Your task to perform on an android device: Open Amazon Image 0: 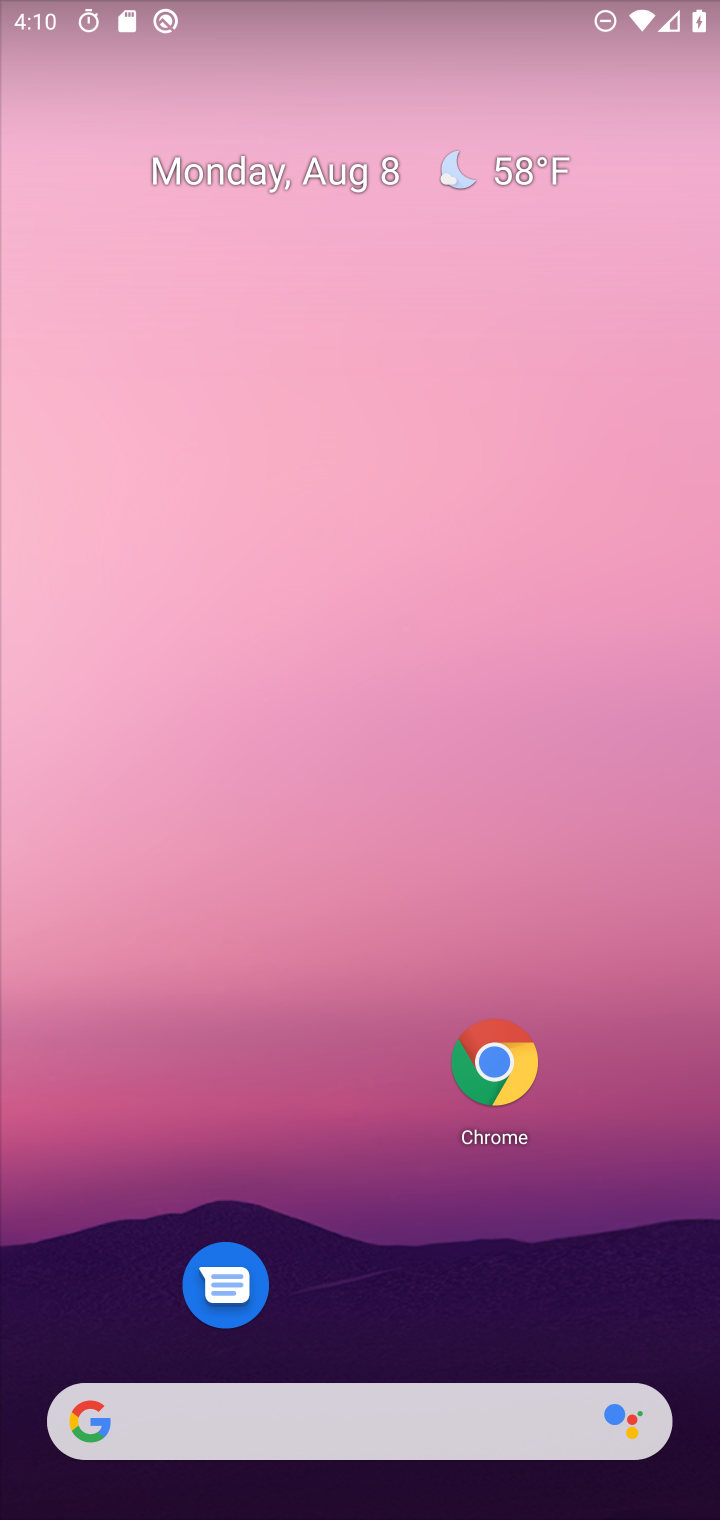
Step 0: click (494, 1042)
Your task to perform on an android device: Open Amazon Image 1: 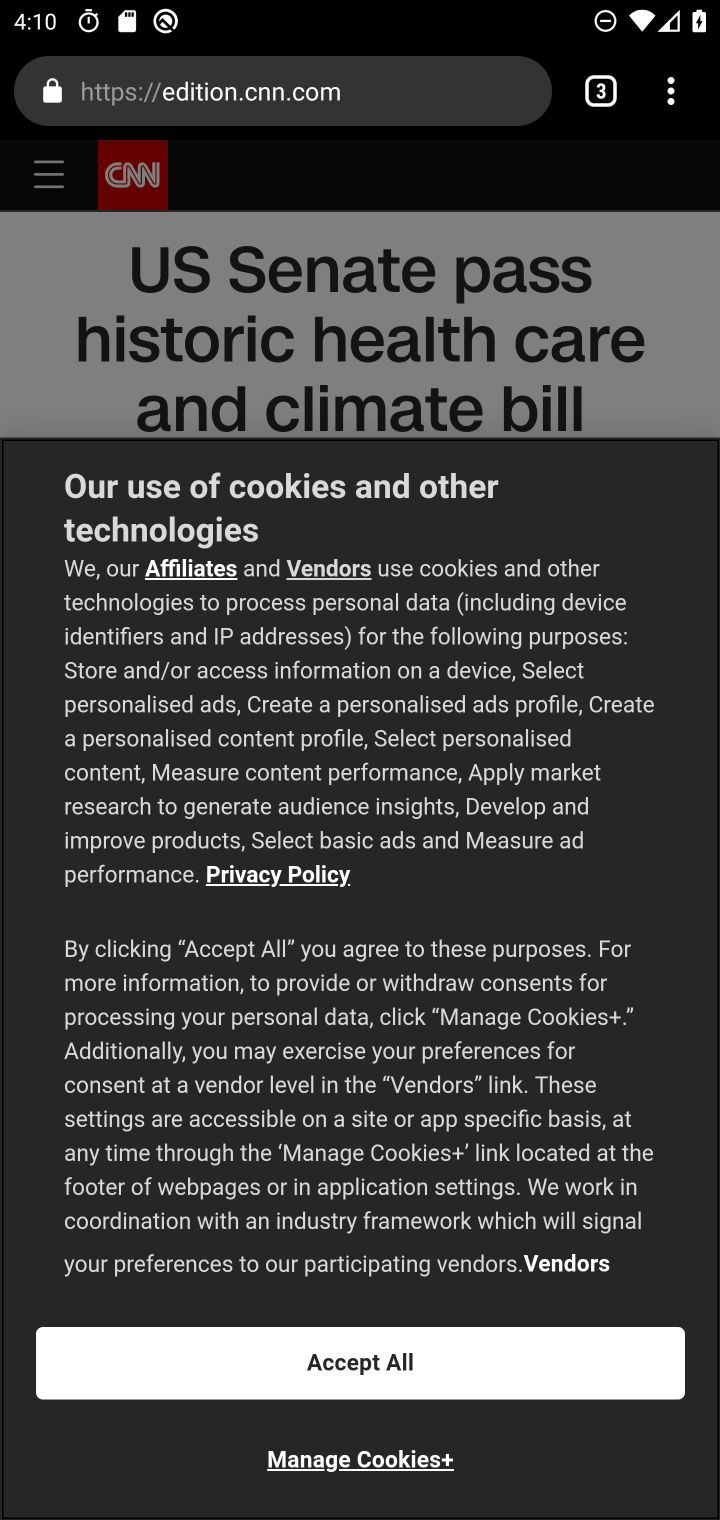
Step 1: click (602, 98)
Your task to perform on an android device: Open Amazon Image 2: 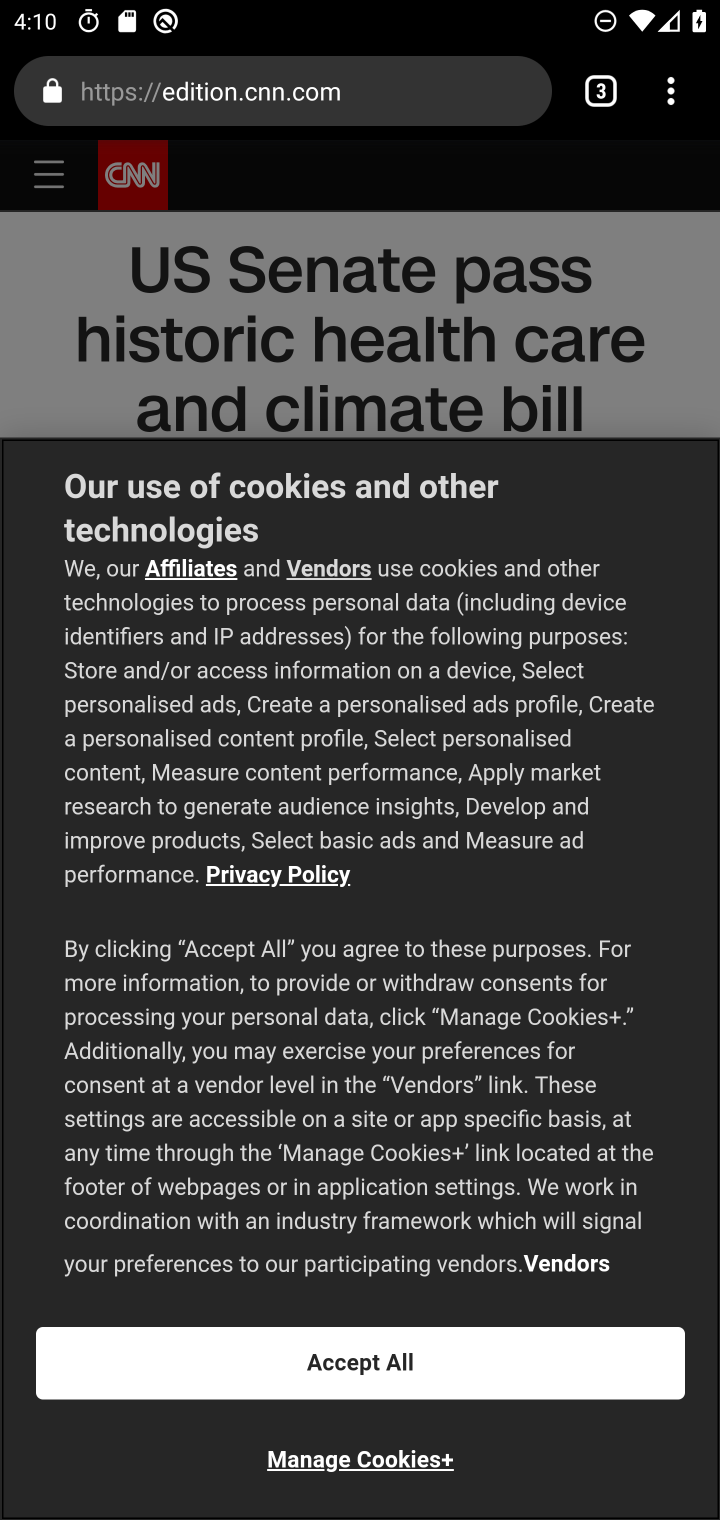
Step 2: click (604, 92)
Your task to perform on an android device: Open Amazon Image 3: 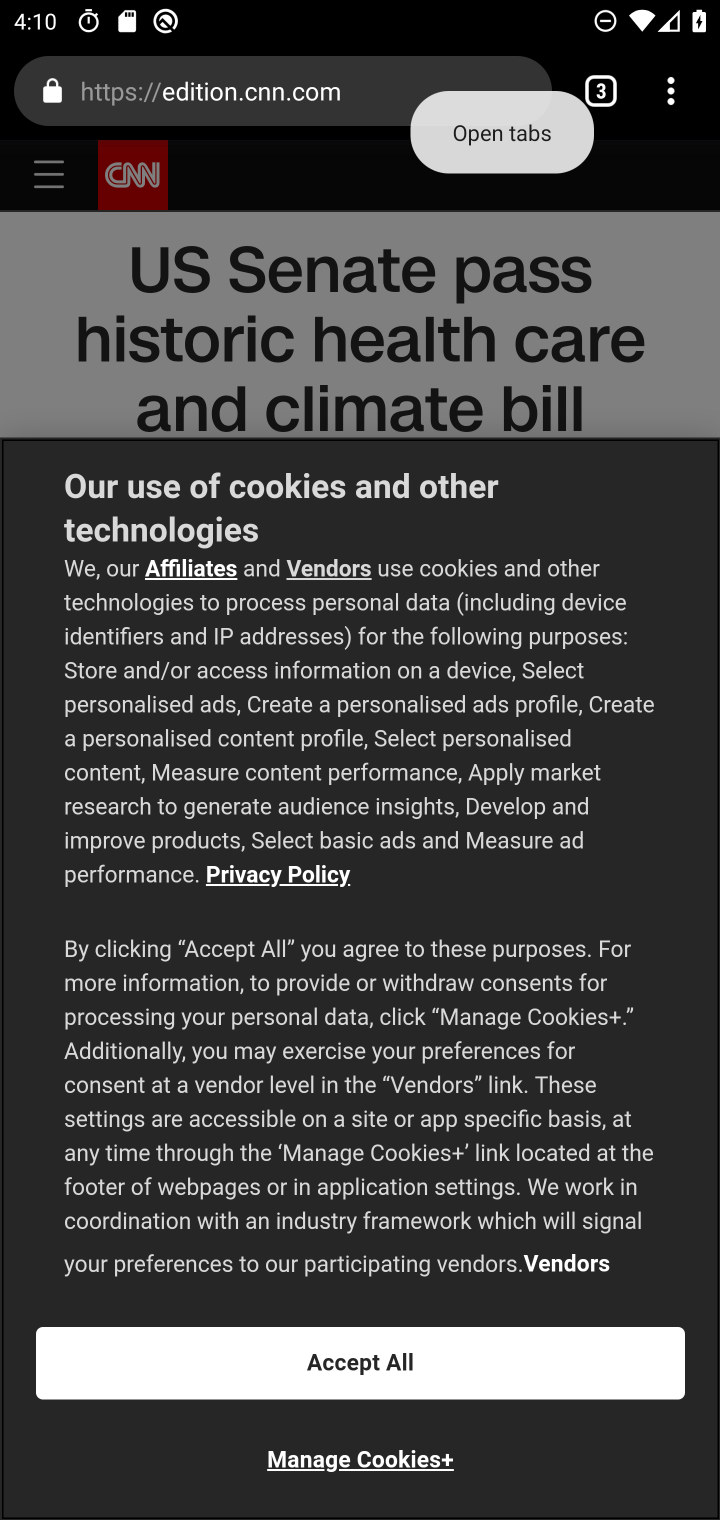
Step 3: click (610, 79)
Your task to perform on an android device: Open Amazon Image 4: 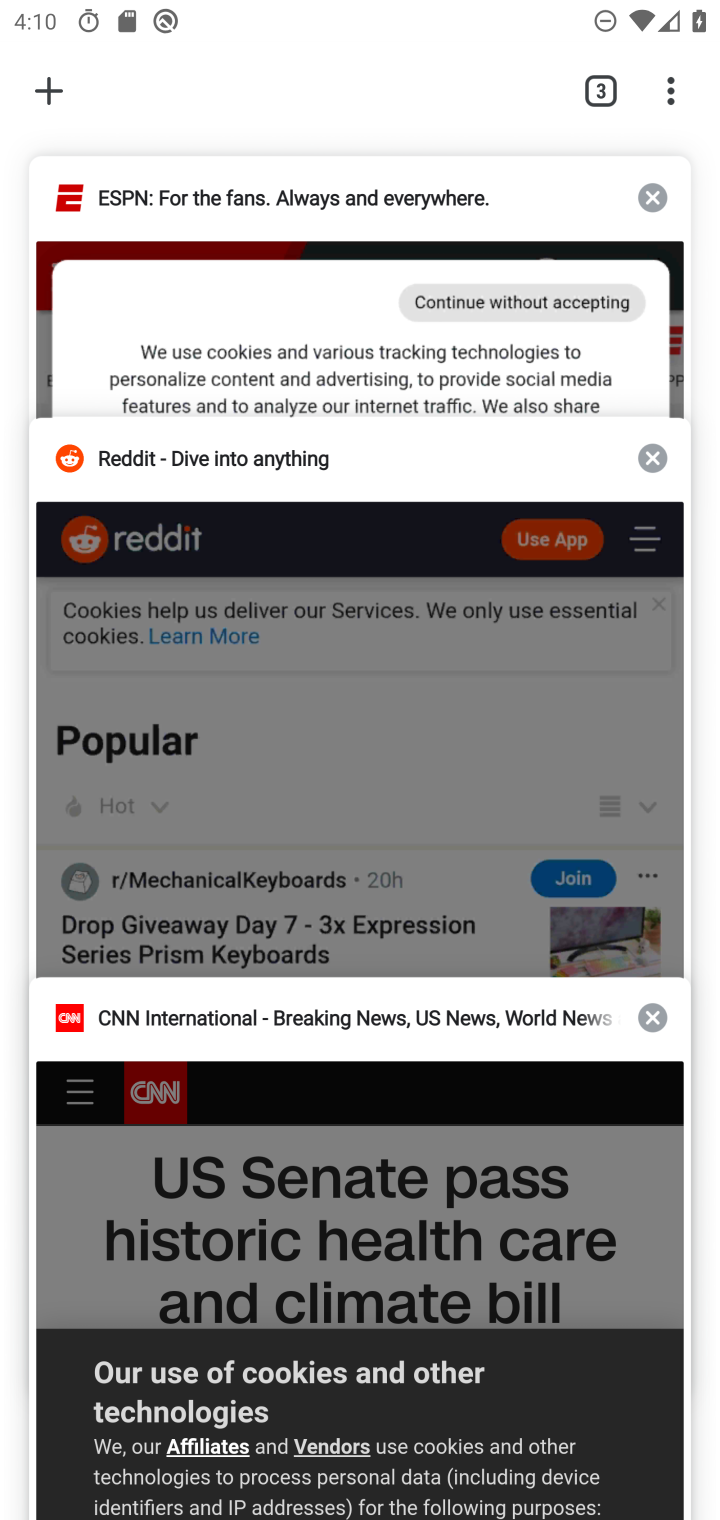
Step 4: click (58, 75)
Your task to perform on an android device: Open Amazon Image 5: 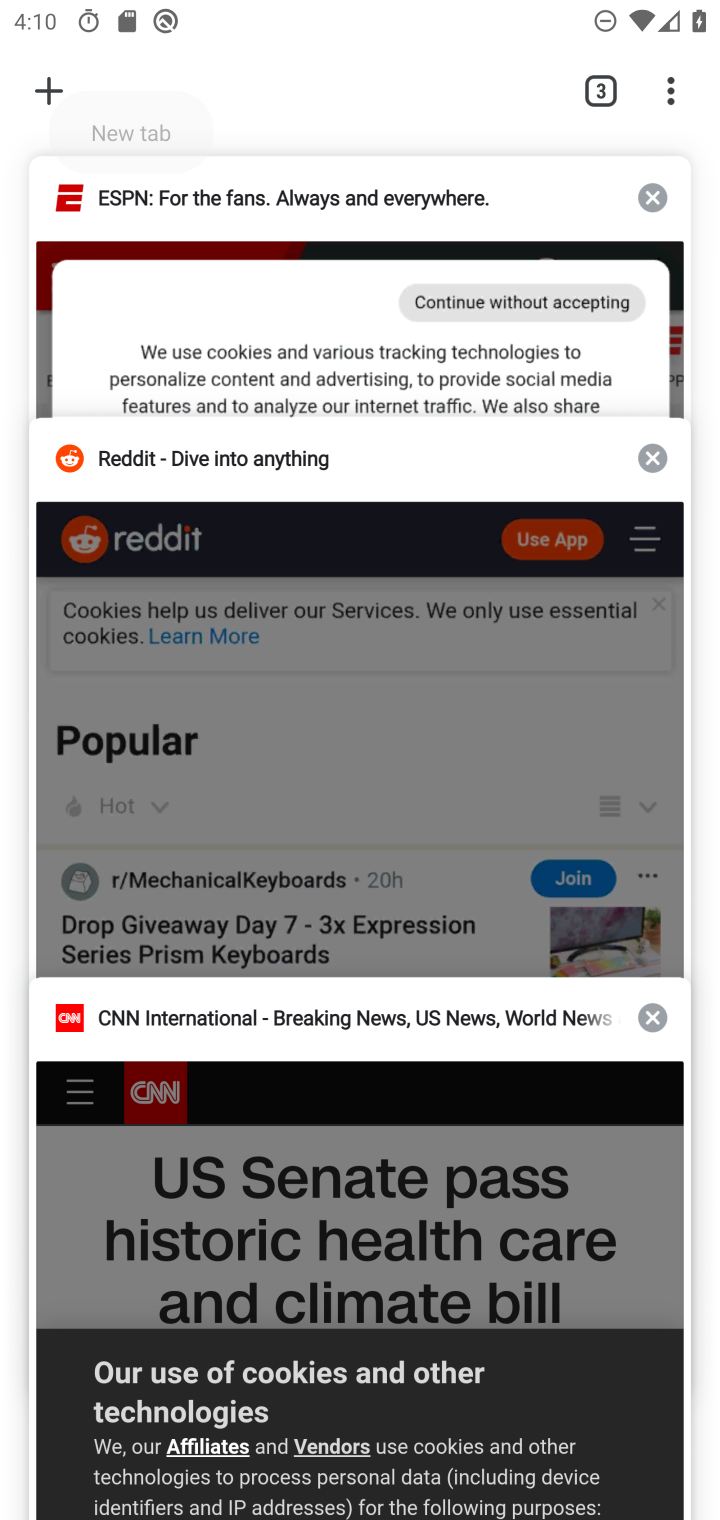
Step 5: click (53, 81)
Your task to perform on an android device: Open Amazon Image 6: 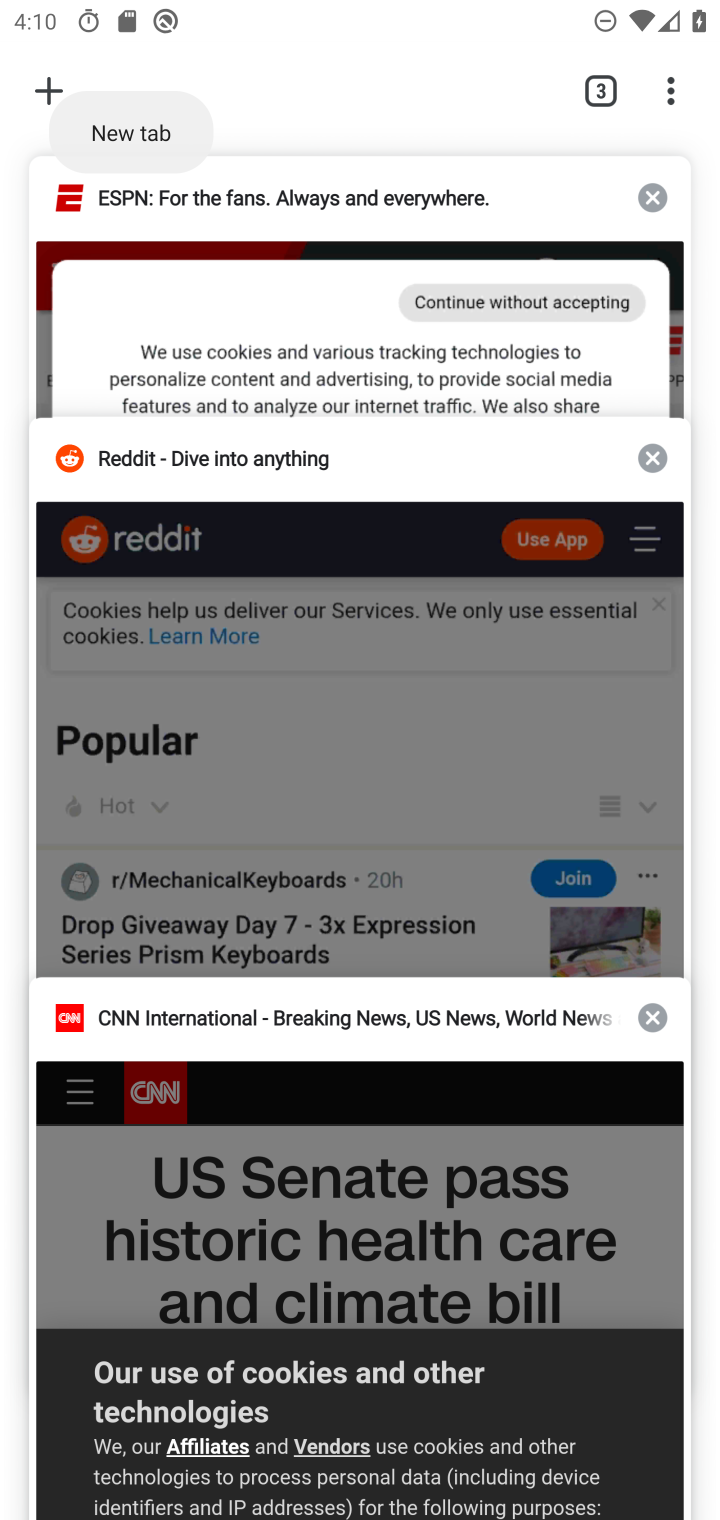
Step 6: click (55, 75)
Your task to perform on an android device: Open Amazon Image 7: 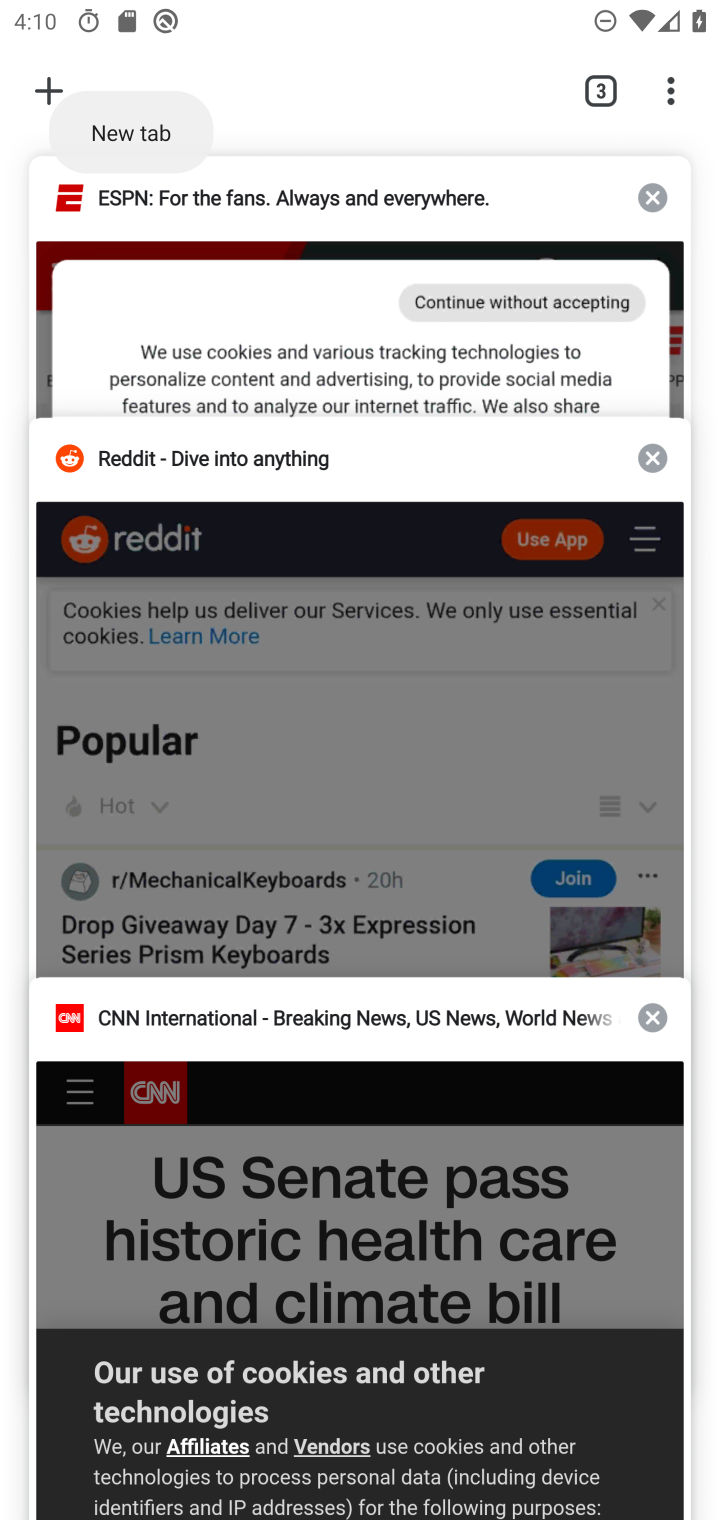
Step 7: click (55, 75)
Your task to perform on an android device: Open Amazon Image 8: 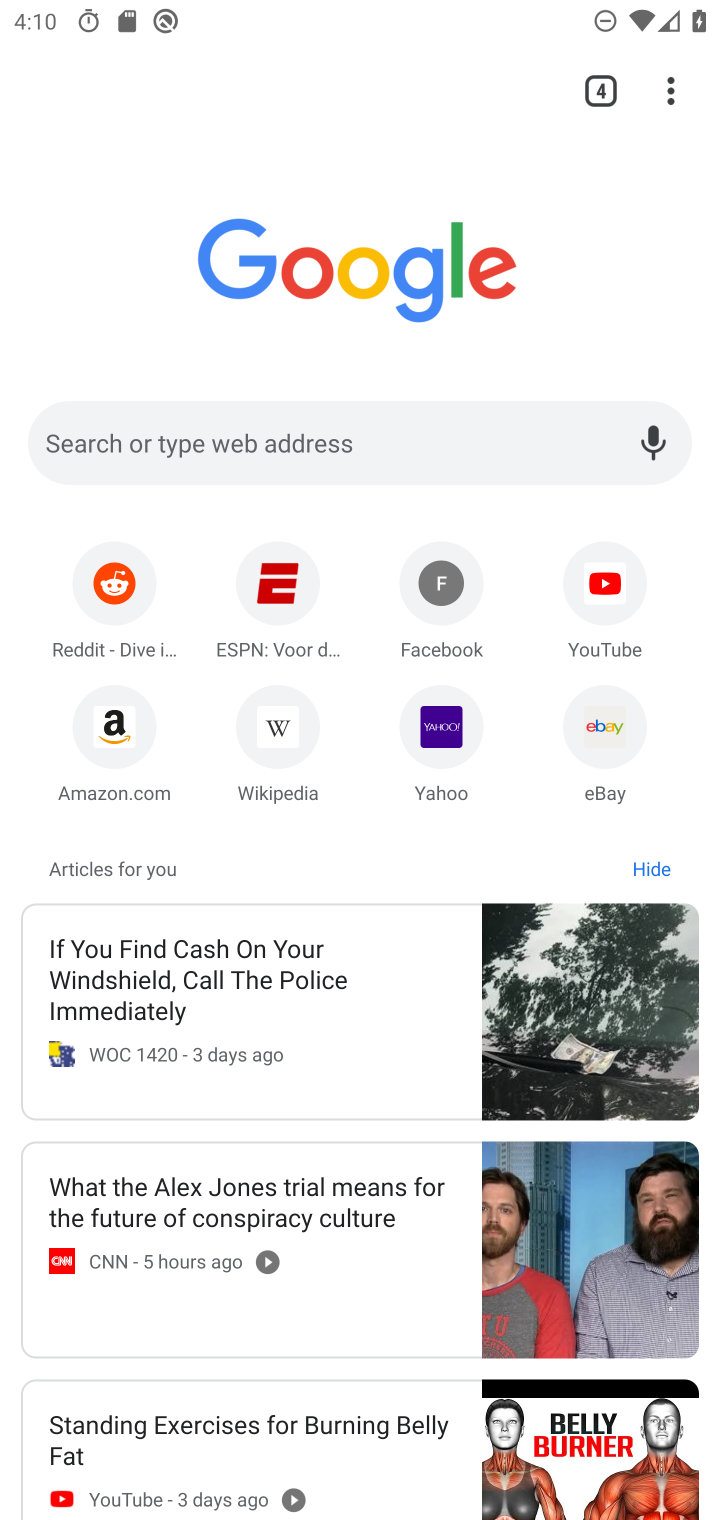
Step 8: click (101, 748)
Your task to perform on an android device: Open Amazon Image 9: 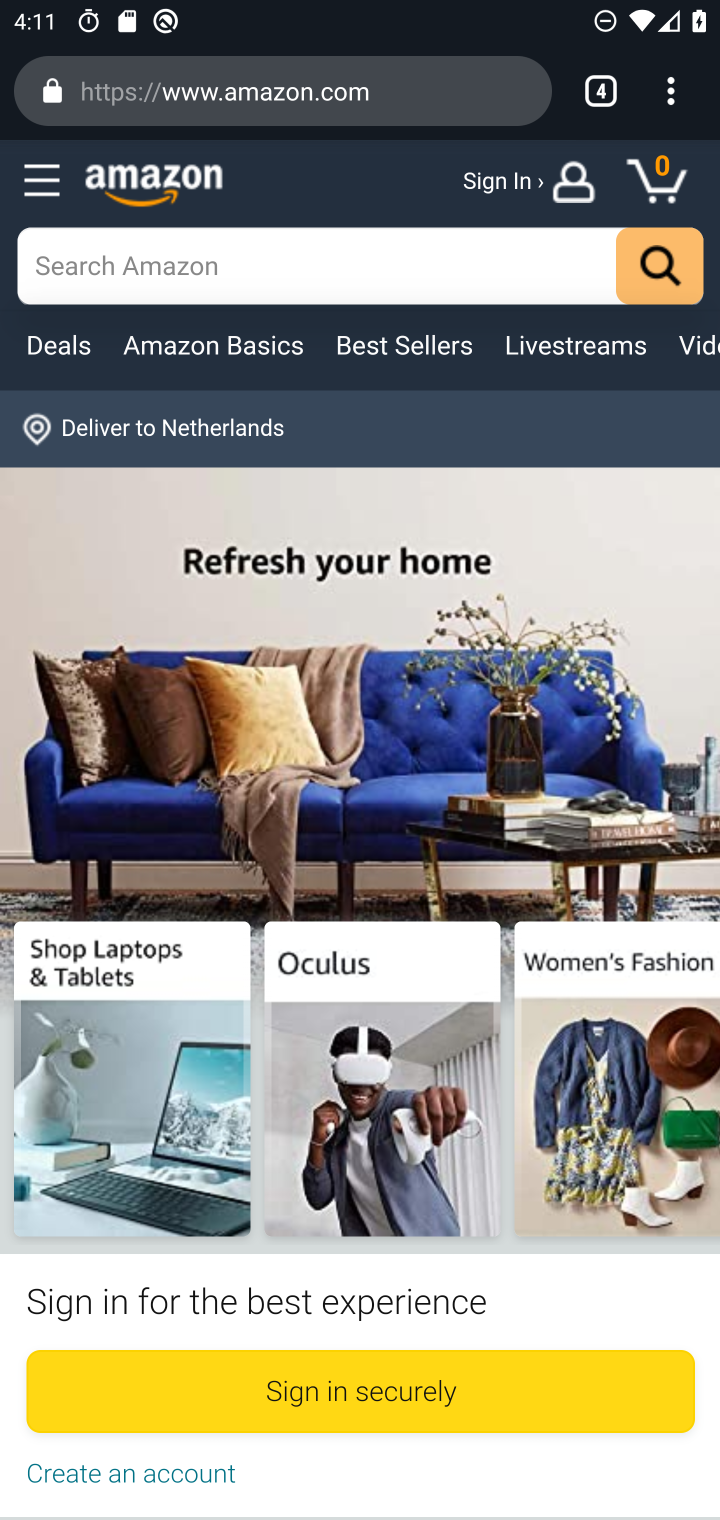
Step 9: task complete